Your task to perform on an android device: search for starred emails in the gmail app Image 0: 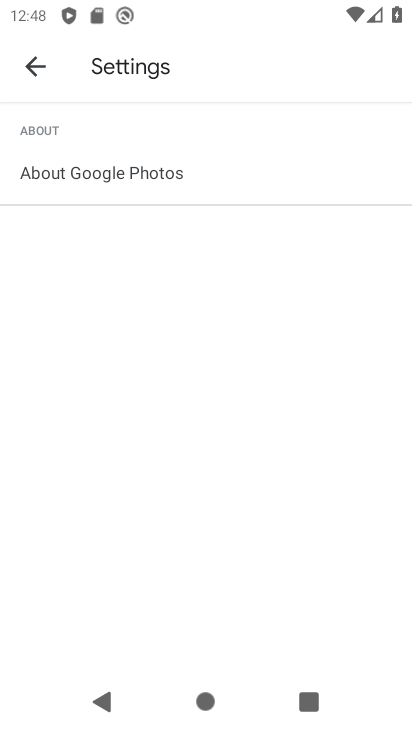
Step 0: press home button
Your task to perform on an android device: search for starred emails in the gmail app Image 1: 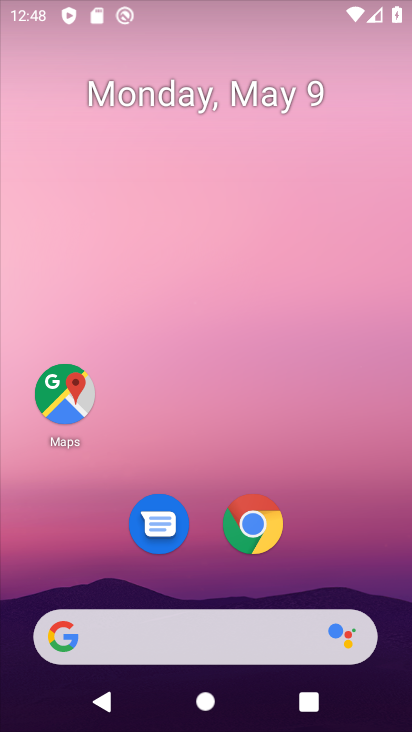
Step 1: drag from (230, 592) to (362, 51)
Your task to perform on an android device: search for starred emails in the gmail app Image 2: 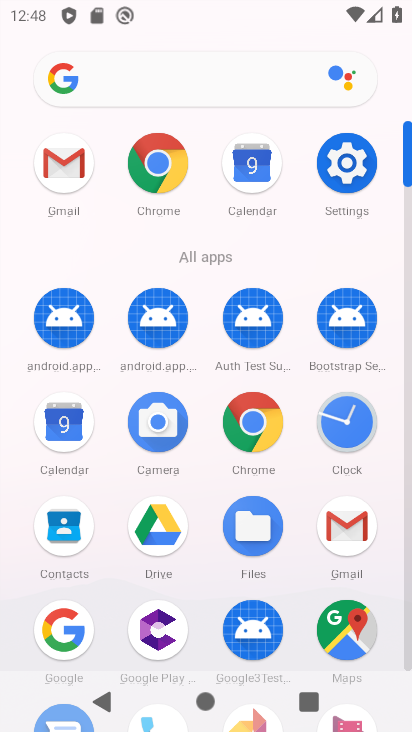
Step 2: click (56, 174)
Your task to perform on an android device: search for starred emails in the gmail app Image 3: 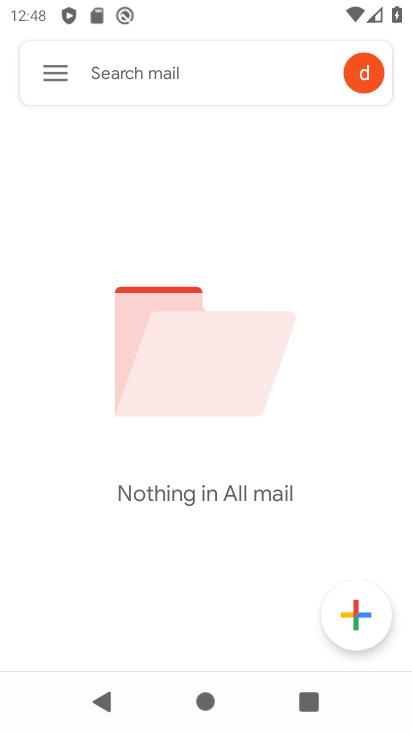
Step 3: click (59, 66)
Your task to perform on an android device: search for starred emails in the gmail app Image 4: 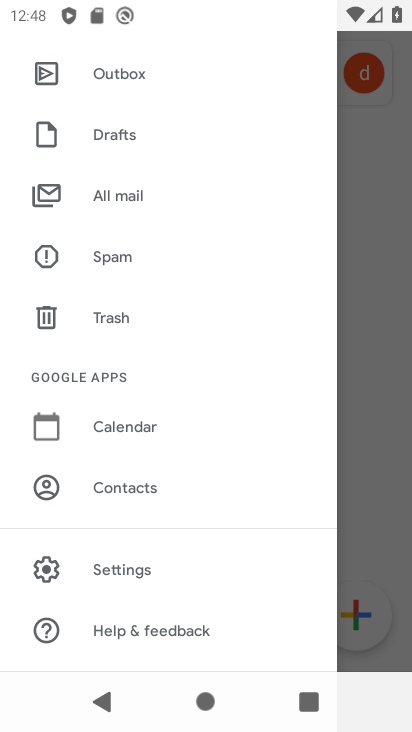
Step 4: drag from (157, 223) to (148, 660)
Your task to perform on an android device: search for starred emails in the gmail app Image 5: 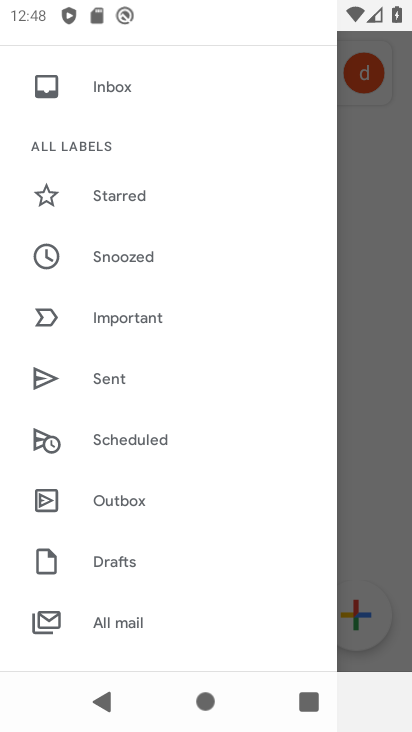
Step 5: click (210, 186)
Your task to perform on an android device: search for starred emails in the gmail app Image 6: 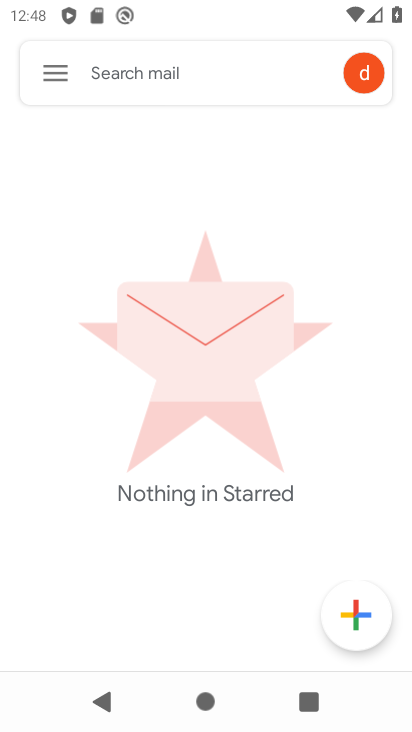
Step 6: task complete